Your task to perform on an android device: see creations saved in the google photos Image 0: 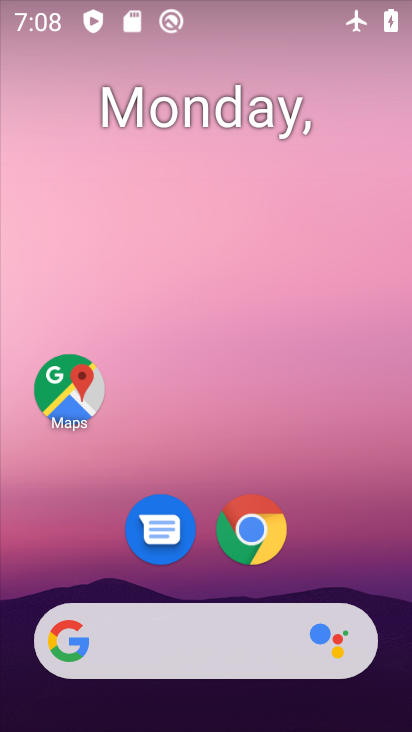
Step 0: drag from (242, 443) to (160, 74)
Your task to perform on an android device: see creations saved in the google photos Image 1: 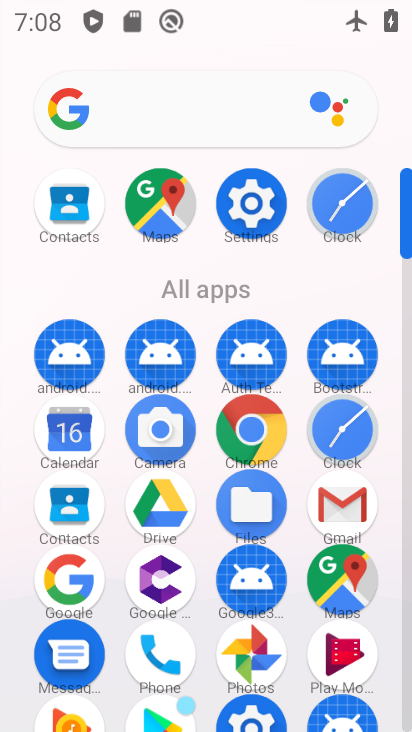
Step 1: click (260, 641)
Your task to perform on an android device: see creations saved in the google photos Image 2: 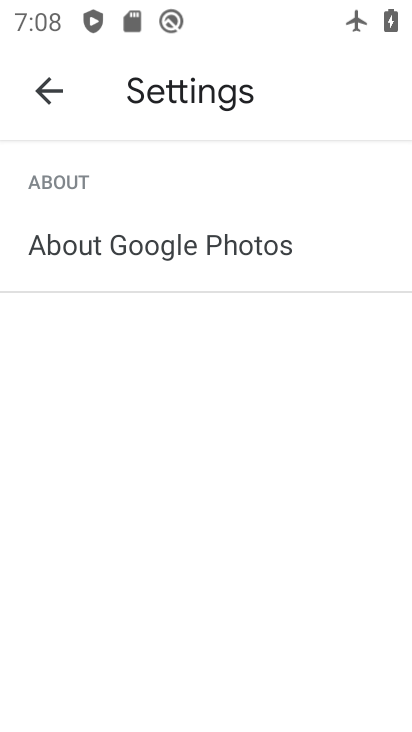
Step 2: click (44, 103)
Your task to perform on an android device: see creations saved in the google photos Image 3: 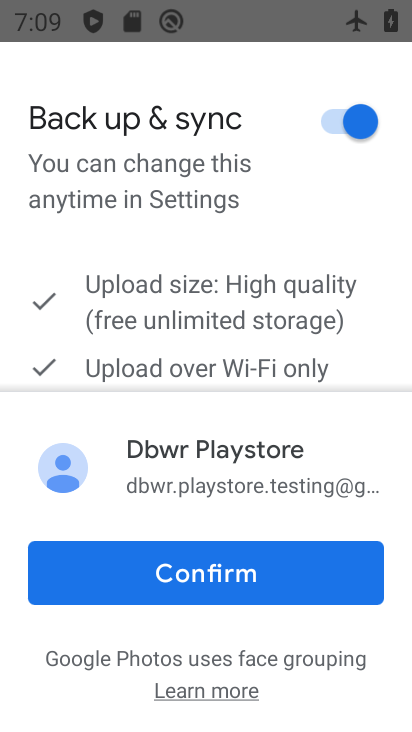
Step 3: click (243, 582)
Your task to perform on an android device: see creations saved in the google photos Image 4: 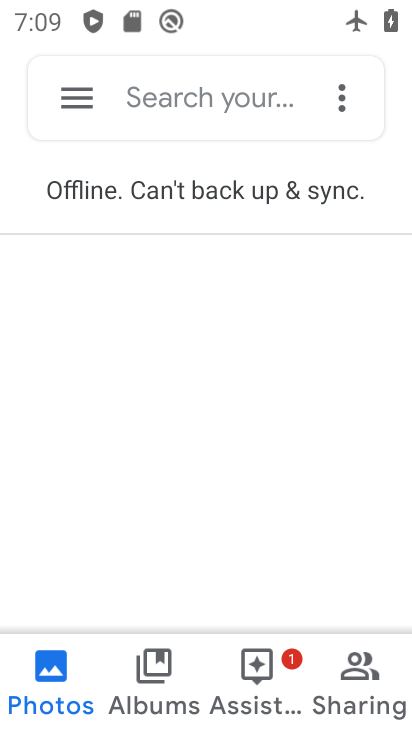
Step 4: click (173, 76)
Your task to perform on an android device: see creations saved in the google photos Image 5: 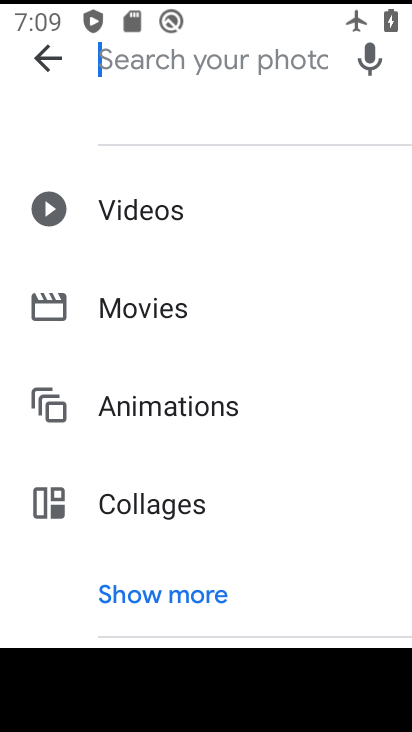
Step 5: click (161, 594)
Your task to perform on an android device: see creations saved in the google photos Image 6: 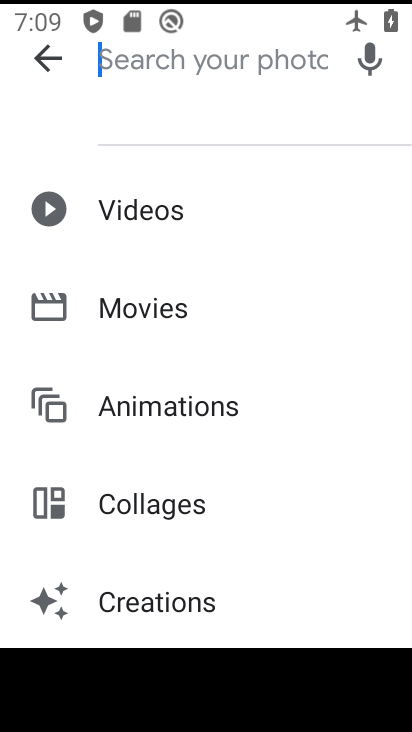
Step 6: click (161, 594)
Your task to perform on an android device: see creations saved in the google photos Image 7: 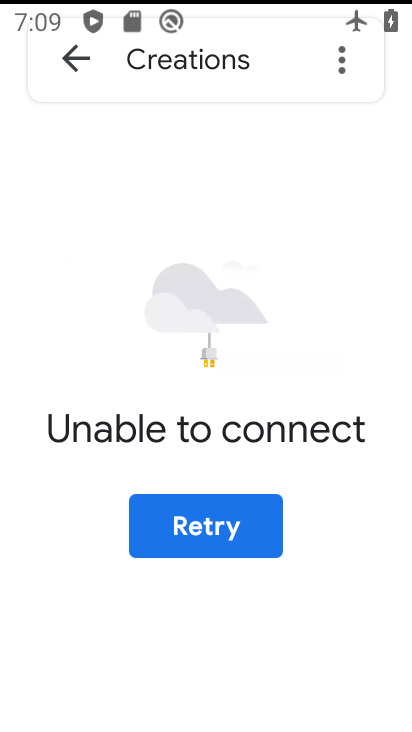
Step 7: click (203, 514)
Your task to perform on an android device: see creations saved in the google photos Image 8: 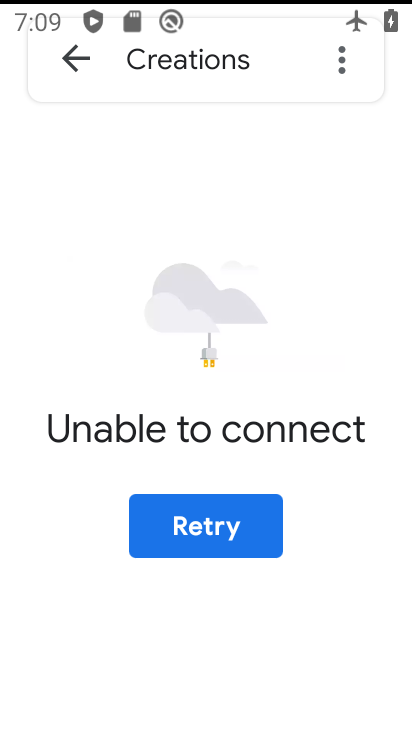
Step 8: click (195, 542)
Your task to perform on an android device: see creations saved in the google photos Image 9: 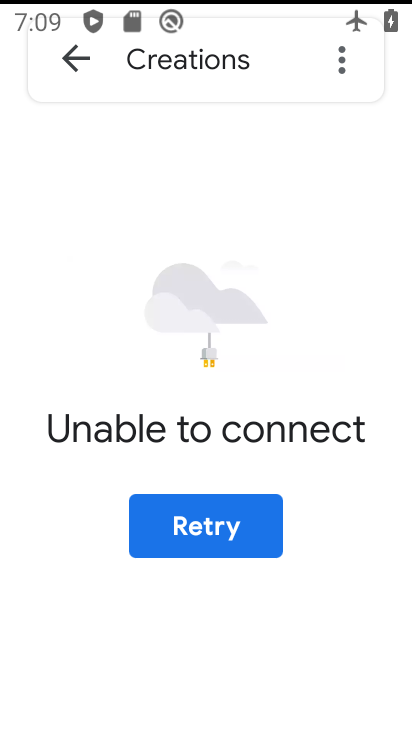
Step 9: task complete